Your task to perform on an android device: allow cookies in the chrome app Image 0: 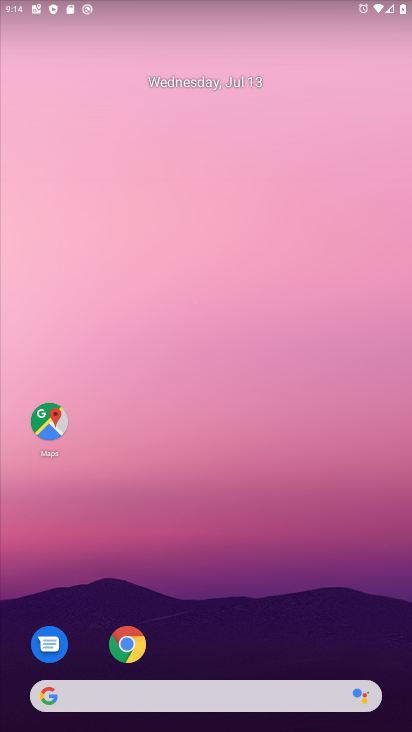
Step 0: drag from (233, 728) to (207, 109)
Your task to perform on an android device: allow cookies in the chrome app Image 1: 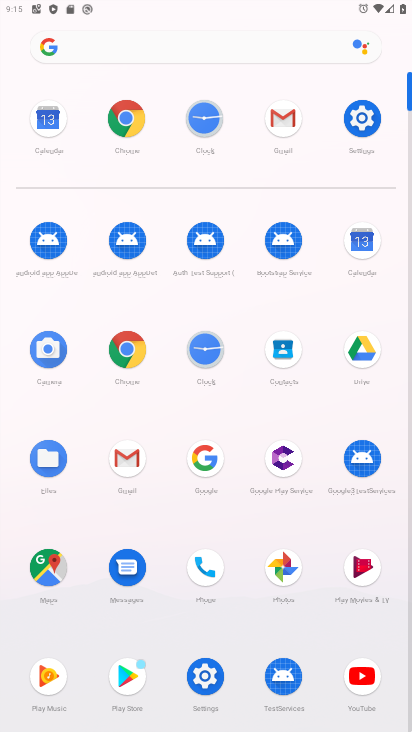
Step 1: click (130, 346)
Your task to perform on an android device: allow cookies in the chrome app Image 2: 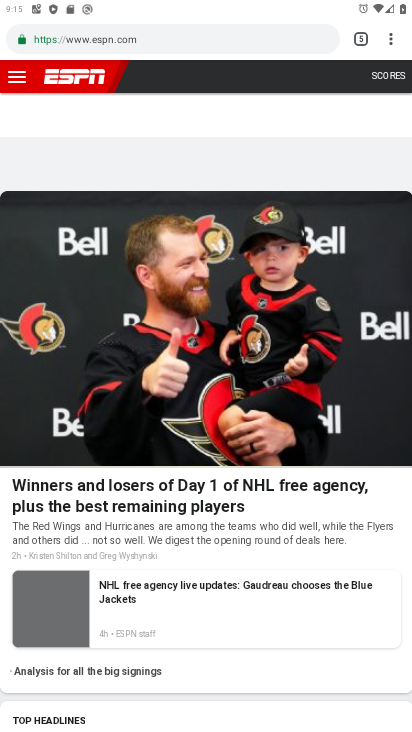
Step 2: click (393, 43)
Your task to perform on an android device: allow cookies in the chrome app Image 3: 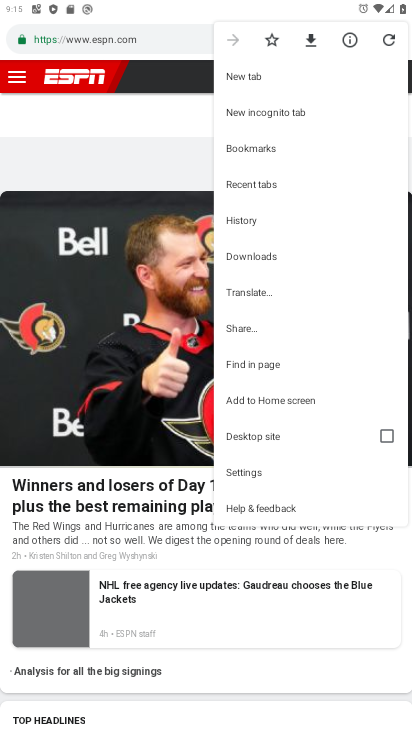
Step 3: click (248, 472)
Your task to perform on an android device: allow cookies in the chrome app Image 4: 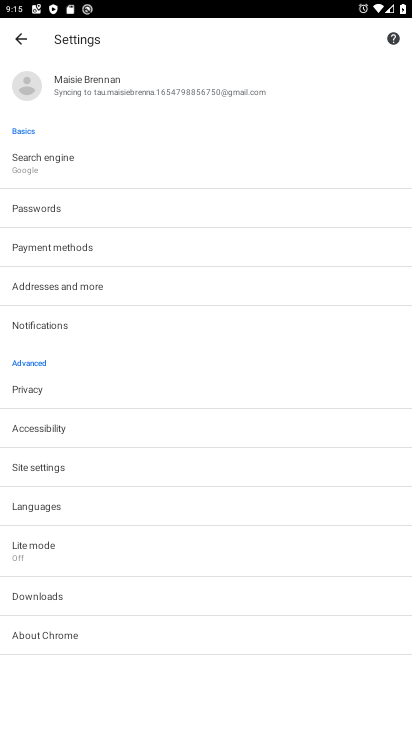
Step 4: click (44, 467)
Your task to perform on an android device: allow cookies in the chrome app Image 5: 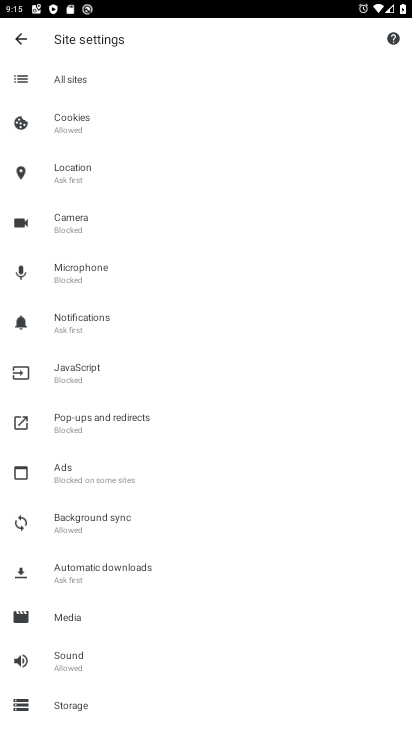
Step 5: click (68, 116)
Your task to perform on an android device: allow cookies in the chrome app Image 6: 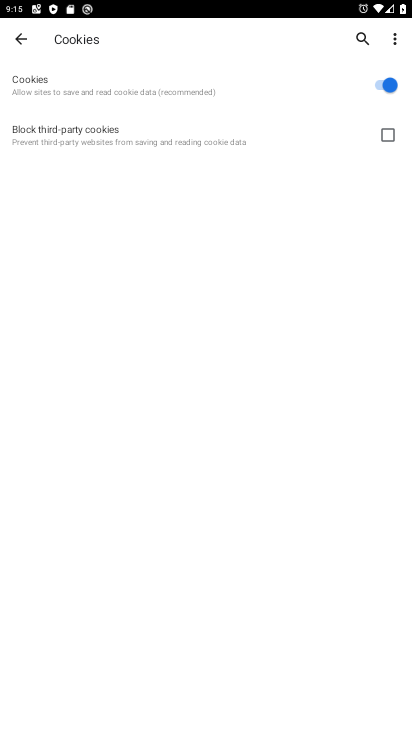
Step 6: task complete